Your task to perform on an android device: snooze an email in the gmail app Image 0: 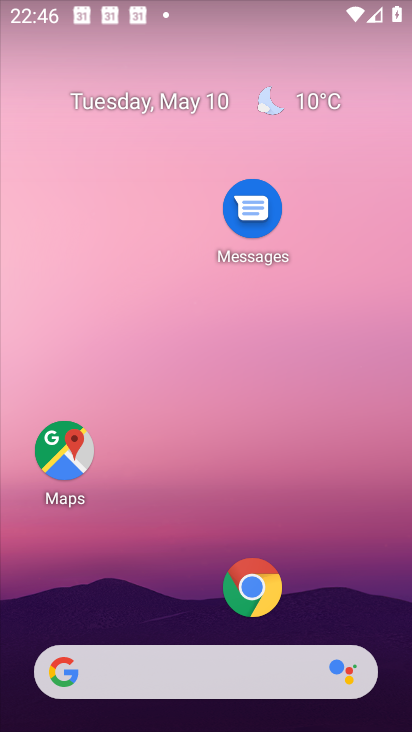
Step 0: drag from (180, 613) to (199, 186)
Your task to perform on an android device: snooze an email in the gmail app Image 1: 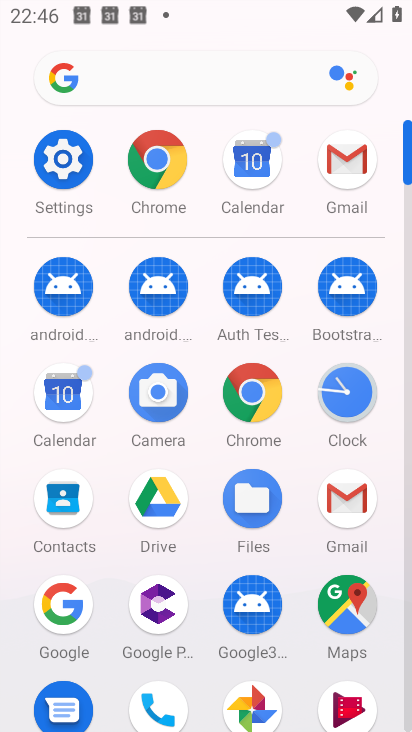
Step 1: click (334, 488)
Your task to perform on an android device: snooze an email in the gmail app Image 2: 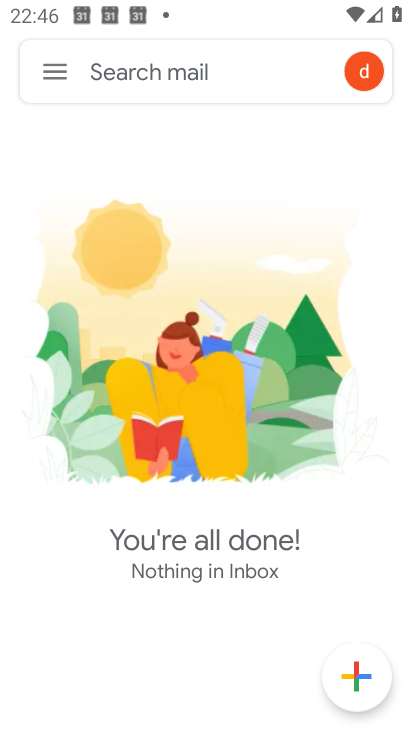
Step 2: click (41, 66)
Your task to perform on an android device: snooze an email in the gmail app Image 3: 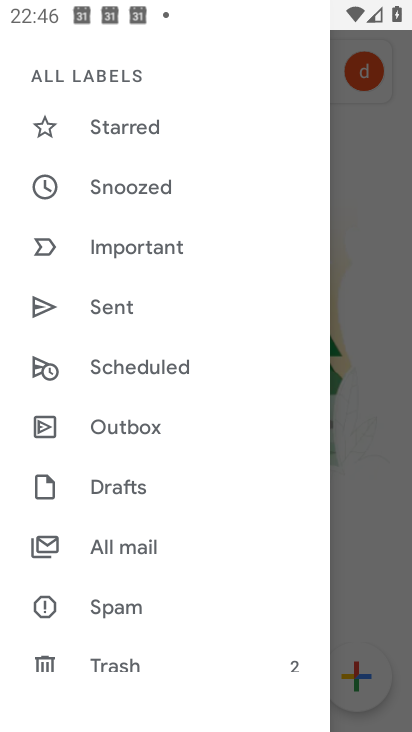
Step 3: drag from (112, 612) to (176, 354)
Your task to perform on an android device: snooze an email in the gmail app Image 4: 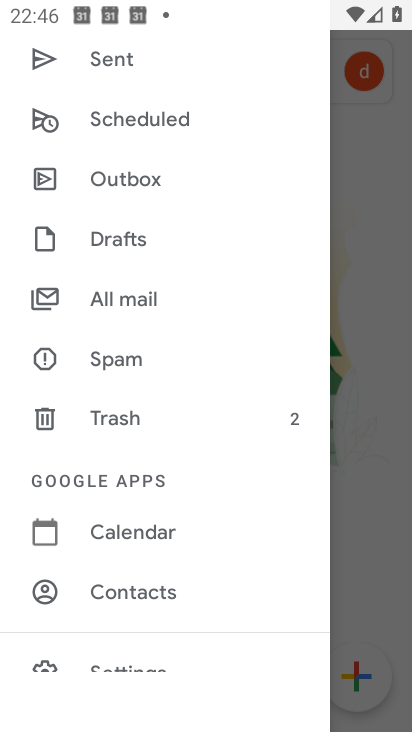
Step 4: click (154, 313)
Your task to perform on an android device: snooze an email in the gmail app Image 5: 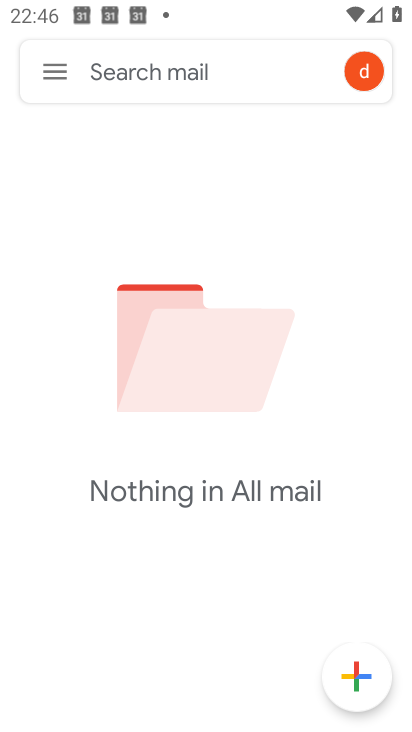
Step 5: click (61, 68)
Your task to perform on an android device: snooze an email in the gmail app Image 6: 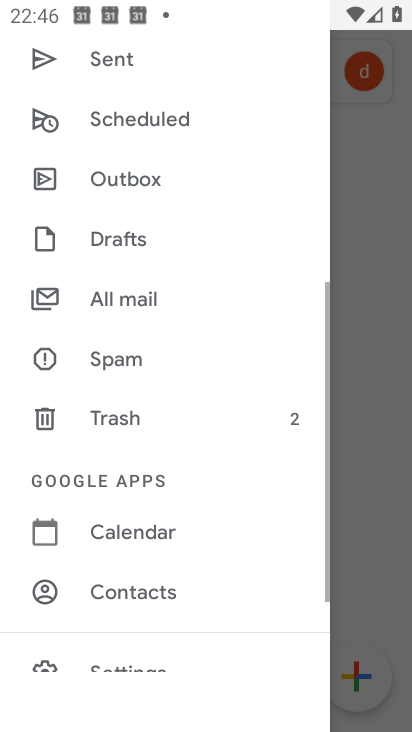
Step 6: click (161, 420)
Your task to perform on an android device: snooze an email in the gmail app Image 7: 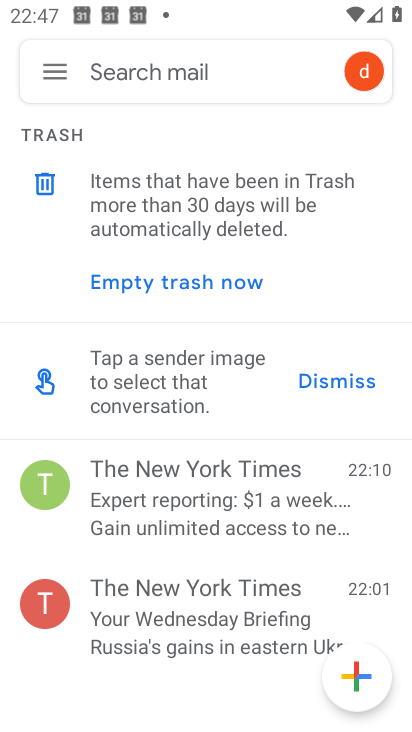
Step 7: click (55, 495)
Your task to perform on an android device: snooze an email in the gmail app Image 8: 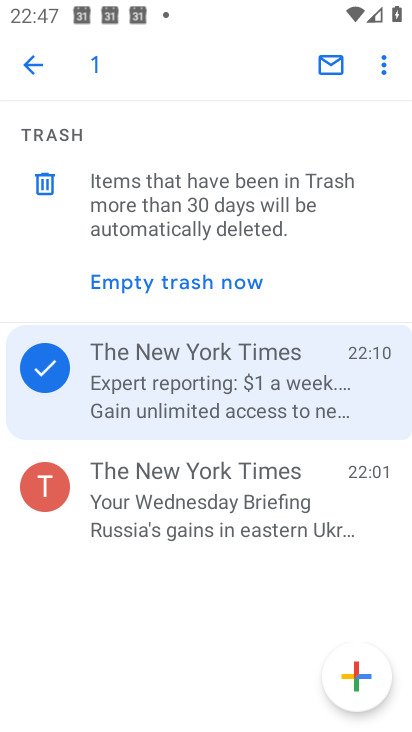
Step 8: click (376, 50)
Your task to perform on an android device: snooze an email in the gmail app Image 9: 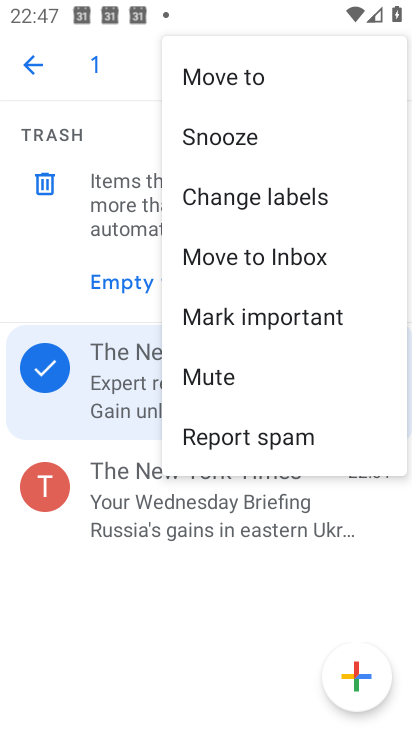
Step 9: click (257, 144)
Your task to perform on an android device: snooze an email in the gmail app Image 10: 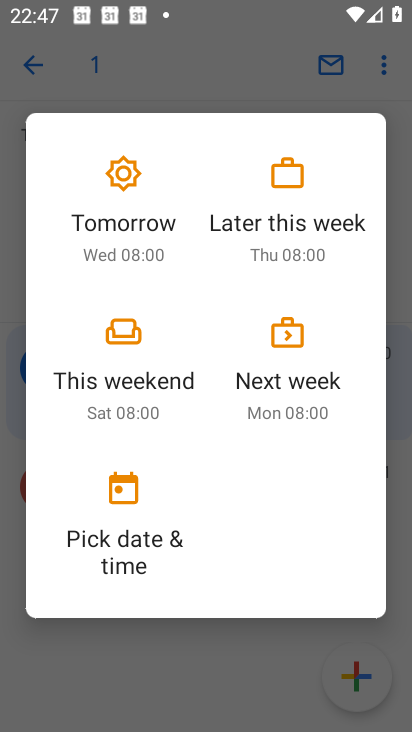
Step 10: click (145, 243)
Your task to perform on an android device: snooze an email in the gmail app Image 11: 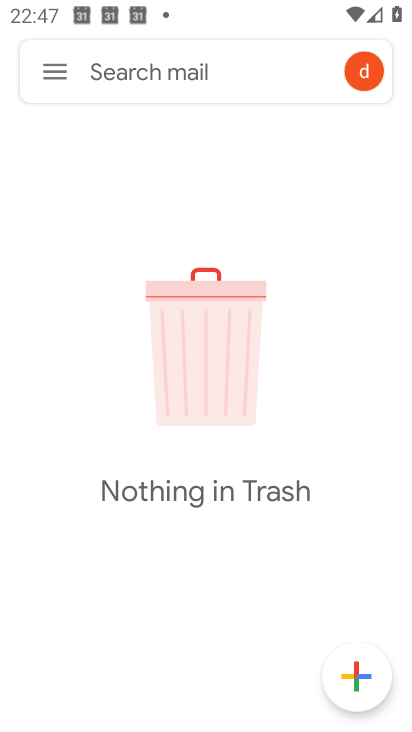
Step 11: task complete